Your task to perform on an android device: refresh tabs in the chrome app Image 0: 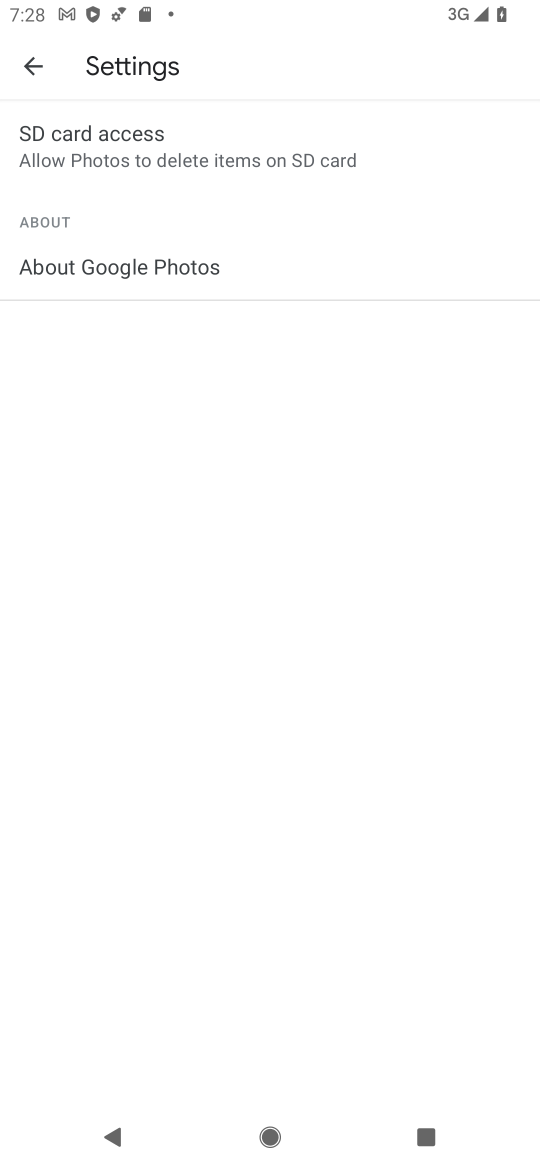
Step 0: click (12, 49)
Your task to perform on an android device: refresh tabs in the chrome app Image 1: 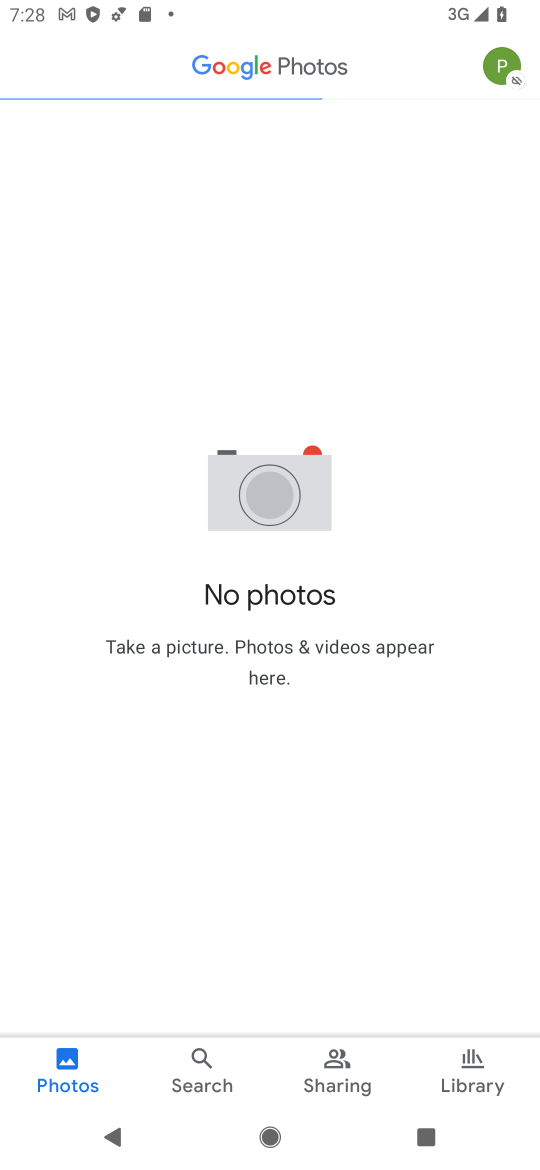
Step 1: drag from (289, 1089) to (112, 238)
Your task to perform on an android device: refresh tabs in the chrome app Image 2: 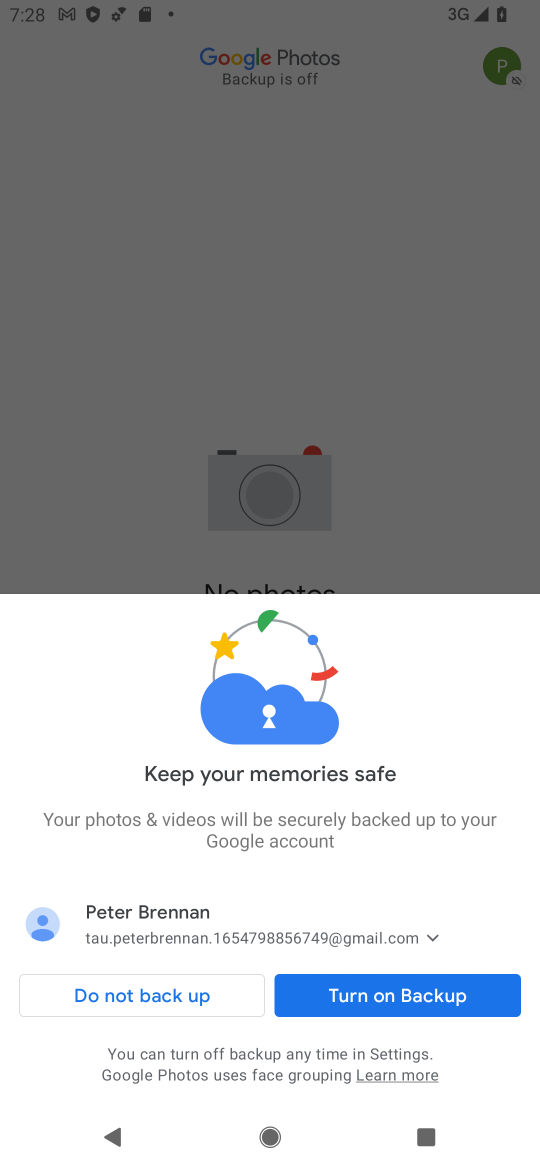
Step 2: click (174, 984)
Your task to perform on an android device: refresh tabs in the chrome app Image 3: 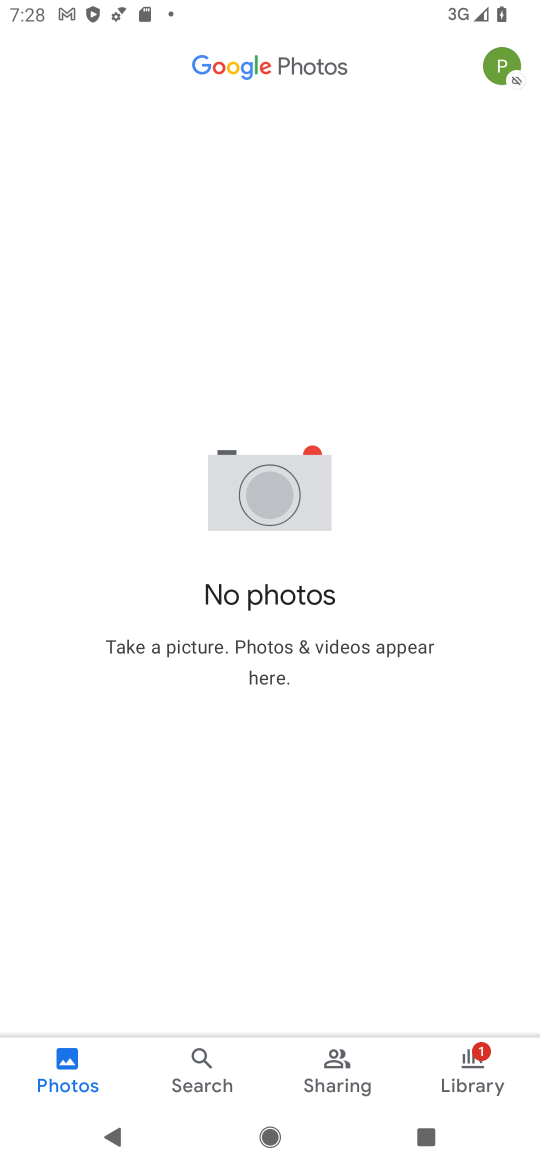
Step 3: press back button
Your task to perform on an android device: refresh tabs in the chrome app Image 4: 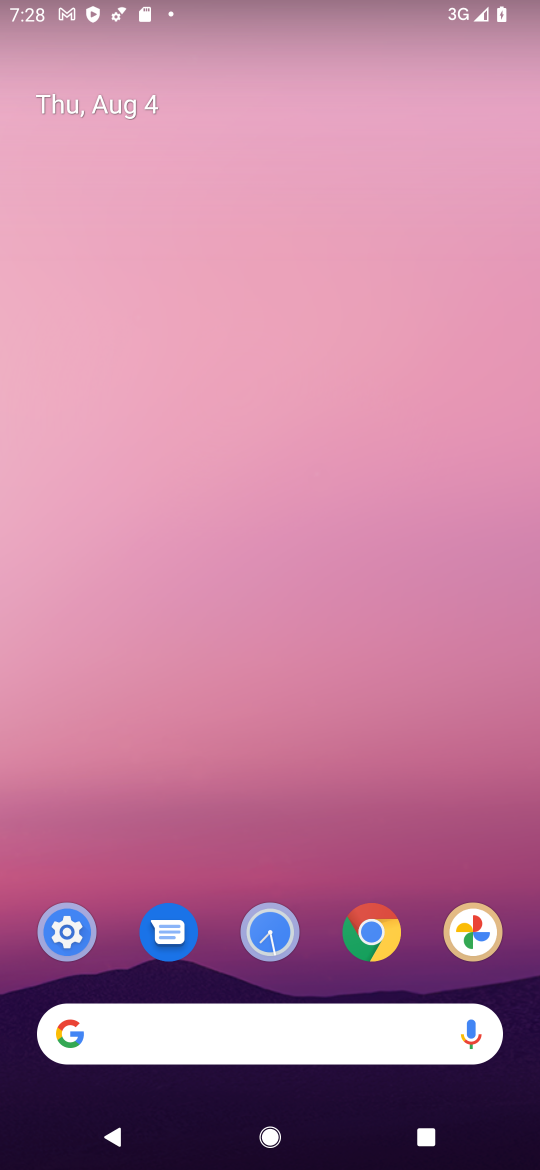
Step 4: drag from (255, 947) to (298, 271)
Your task to perform on an android device: refresh tabs in the chrome app Image 5: 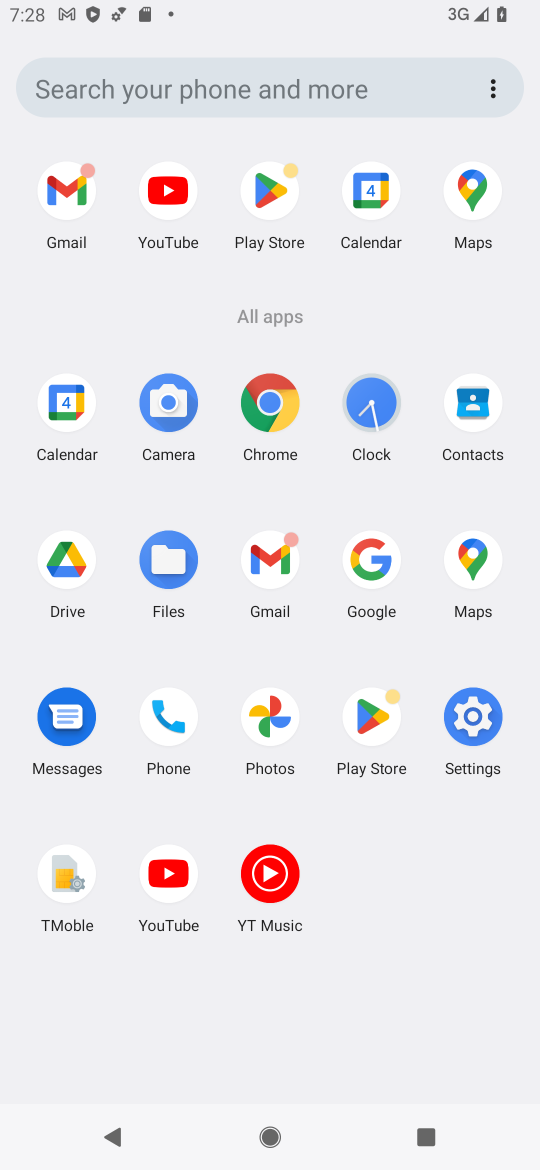
Step 5: click (255, 414)
Your task to perform on an android device: refresh tabs in the chrome app Image 6: 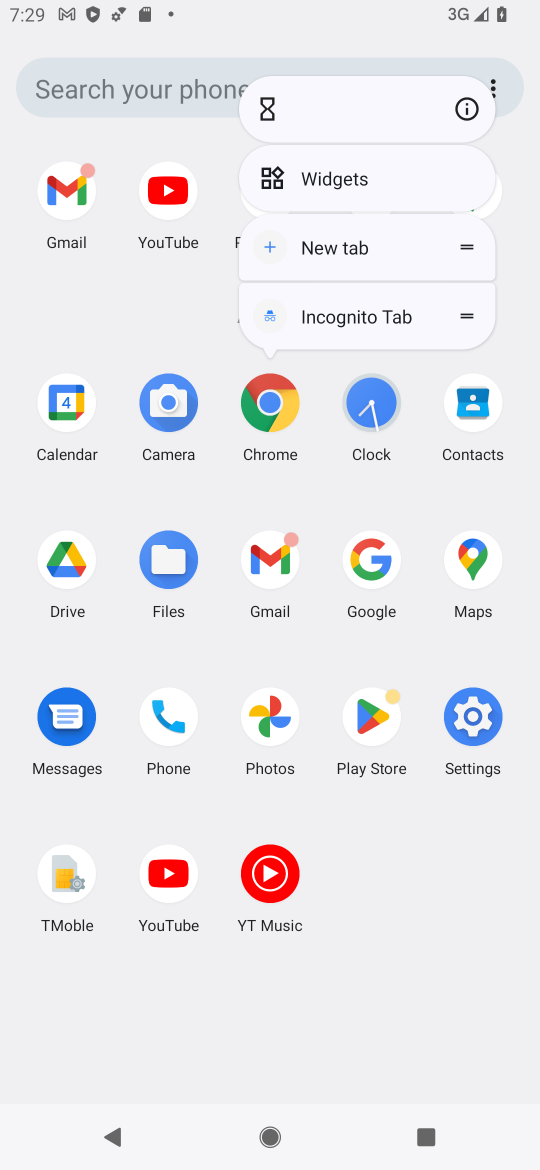
Step 6: click (323, 229)
Your task to perform on an android device: refresh tabs in the chrome app Image 7: 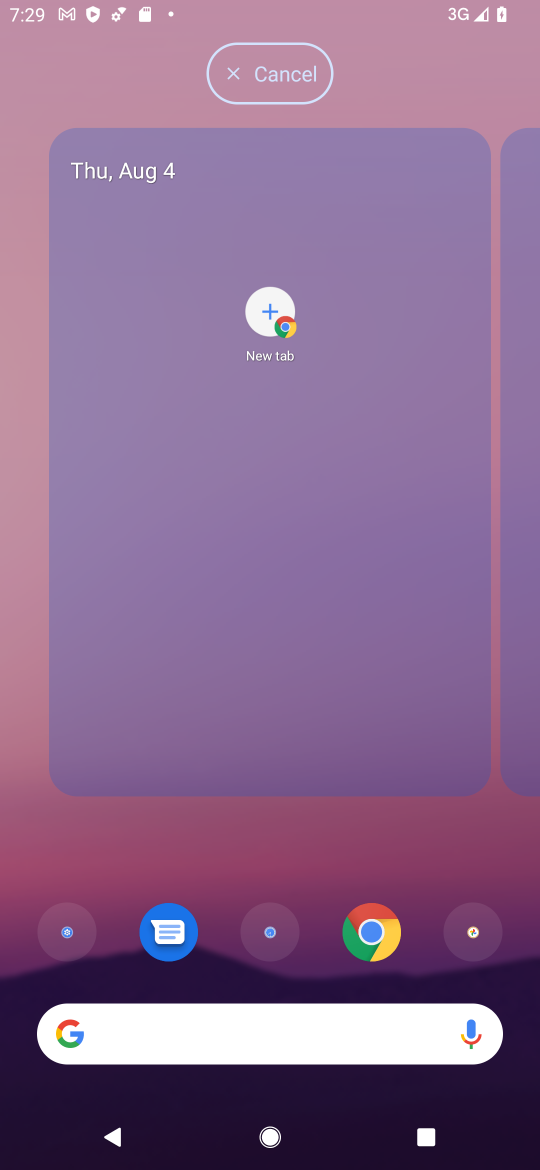
Step 7: click (323, 236)
Your task to perform on an android device: refresh tabs in the chrome app Image 8: 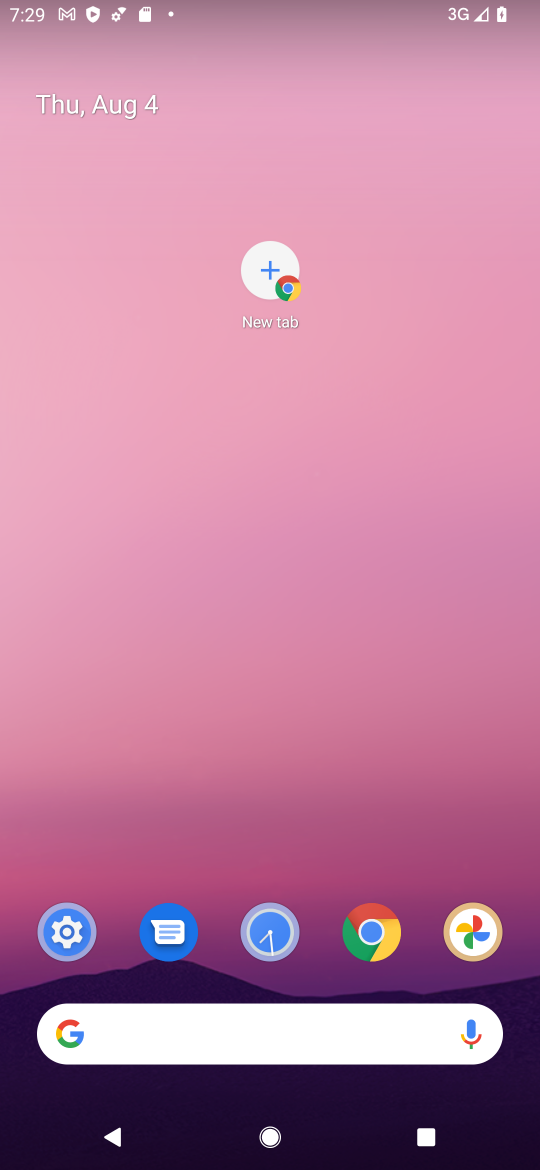
Step 8: drag from (269, 1037) to (217, 320)
Your task to perform on an android device: refresh tabs in the chrome app Image 9: 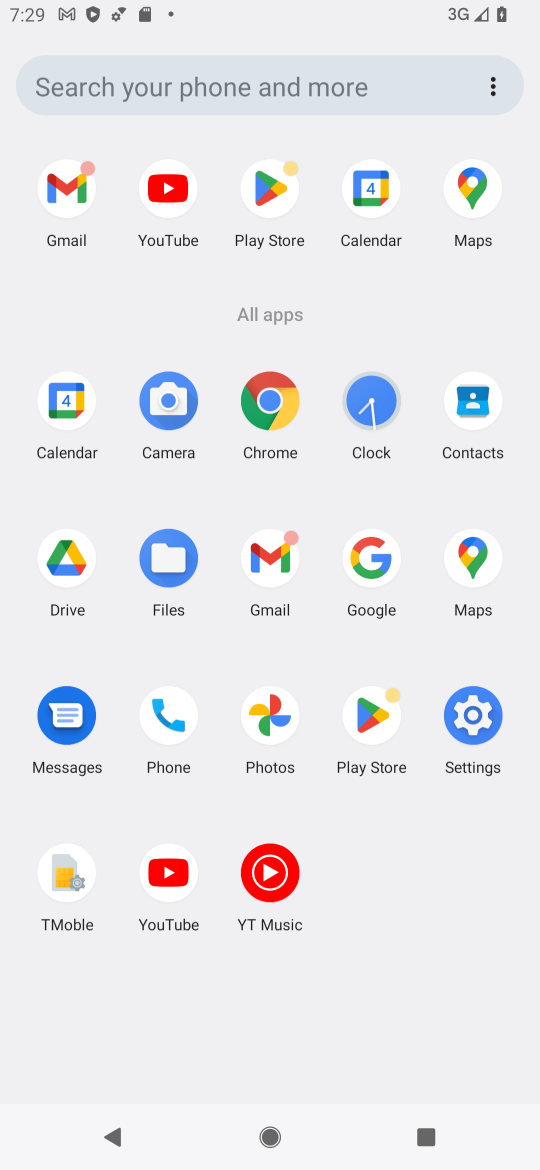
Step 9: drag from (339, 789) to (261, 542)
Your task to perform on an android device: refresh tabs in the chrome app Image 10: 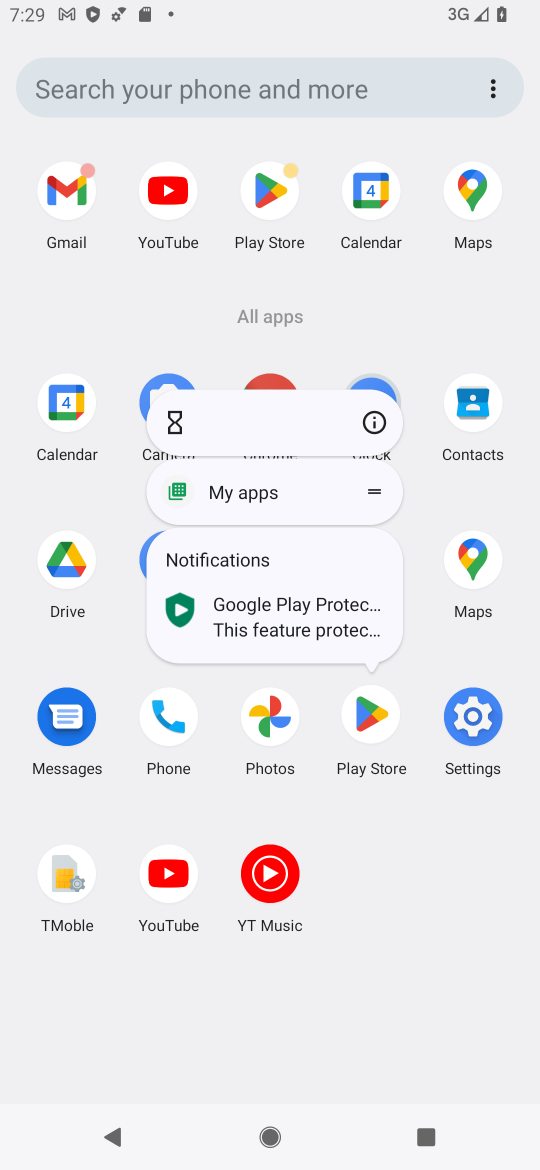
Step 10: click (264, 412)
Your task to perform on an android device: refresh tabs in the chrome app Image 11: 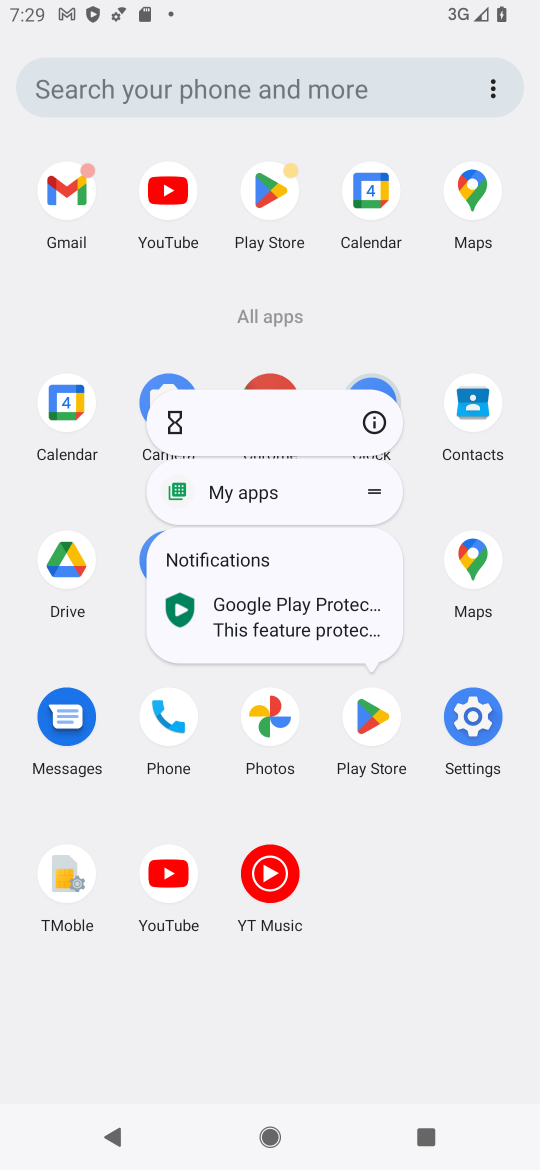
Step 11: click (276, 340)
Your task to perform on an android device: refresh tabs in the chrome app Image 12: 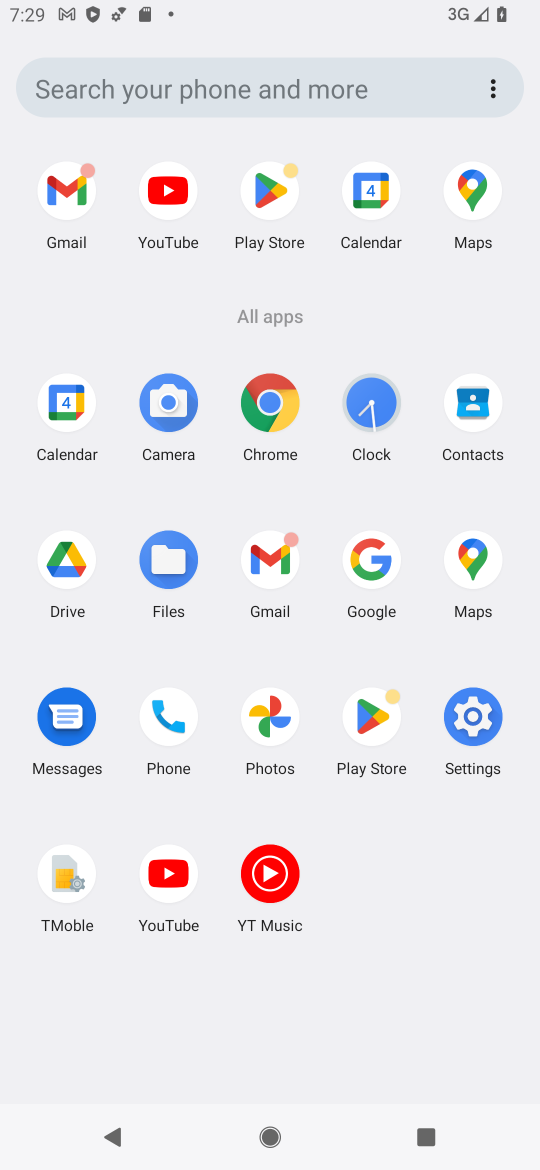
Step 12: click (277, 399)
Your task to perform on an android device: refresh tabs in the chrome app Image 13: 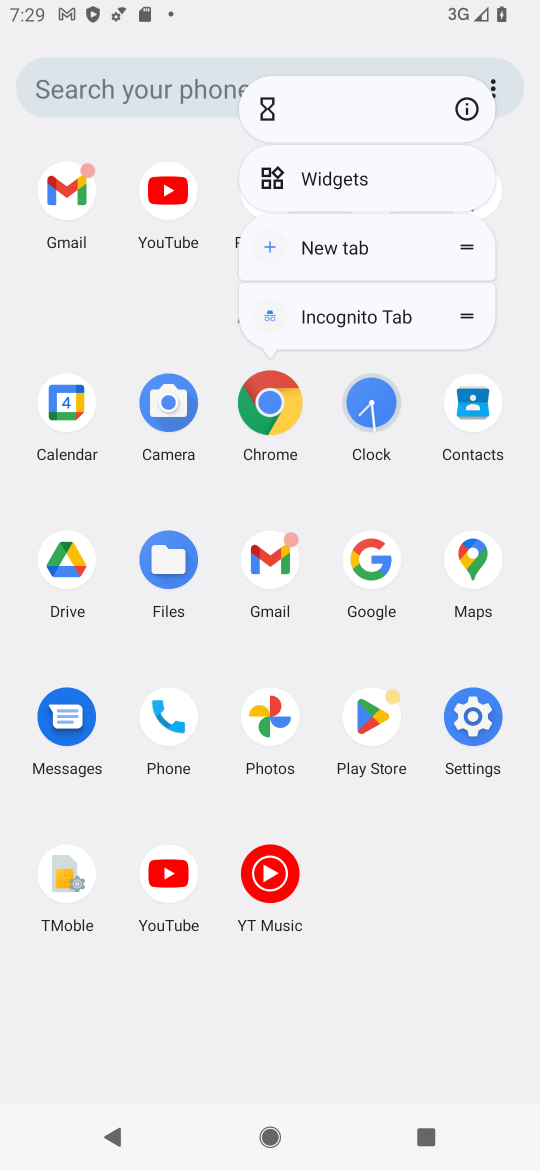
Step 13: click (273, 400)
Your task to perform on an android device: refresh tabs in the chrome app Image 14: 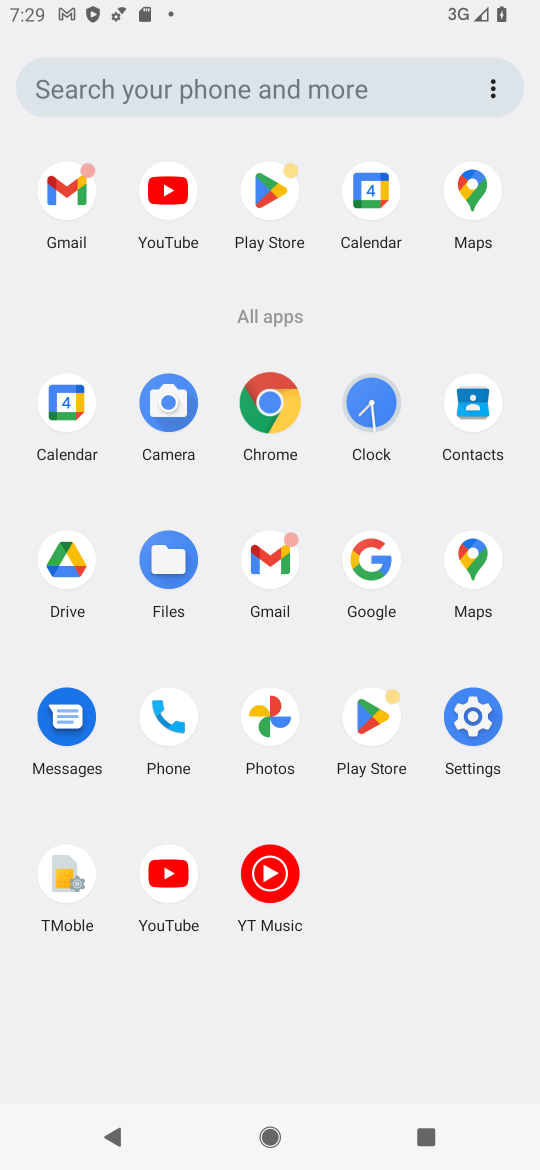
Step 14: drag from (273, 400) to (294, 290)
Your task to perform on an android device: refresh tabs in the chrome app Image 15: 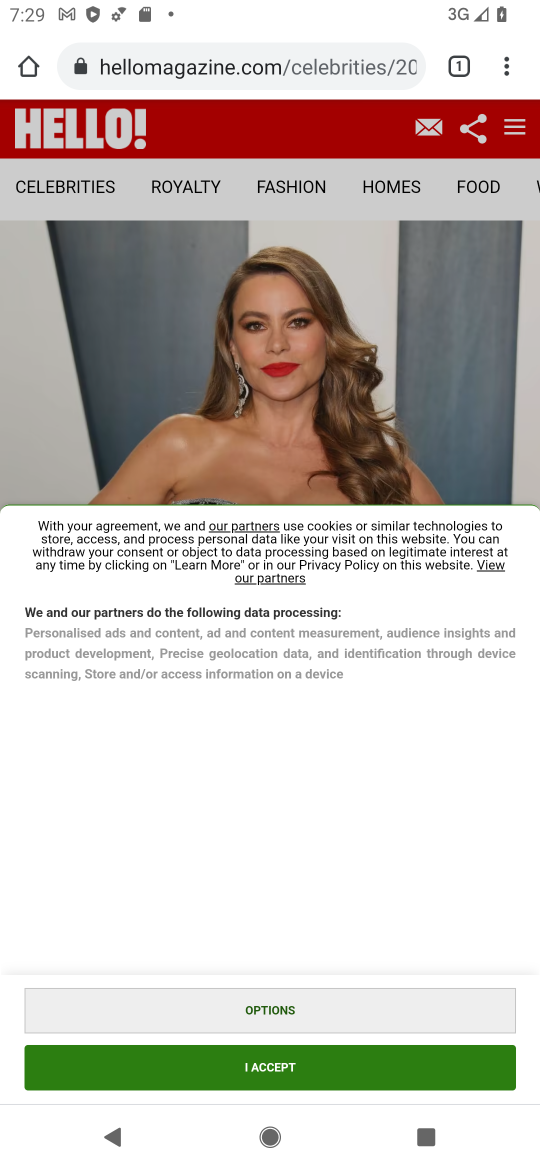
Step 15: click (508, 59)
Your task to perform on an android device: refresh tabs in the chrome app Image 16: 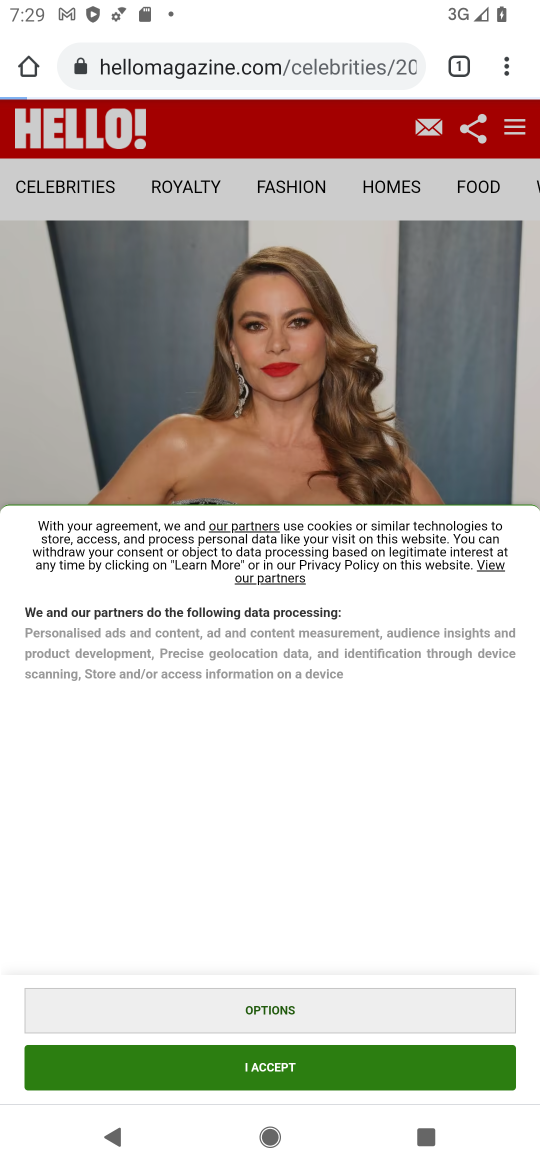
Step 16: click (504, 65)
Your task to perform on an android device: refresh tabs in the chrome app Image 17: 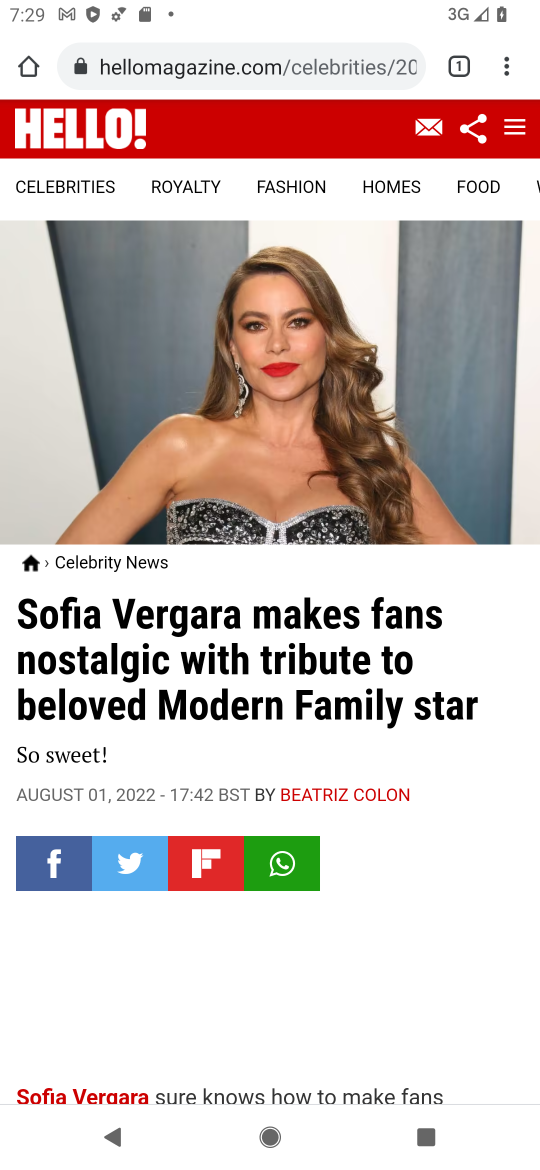
Step 17: task complete